Your task to perform on an android device: change text size in settings app Image 0: 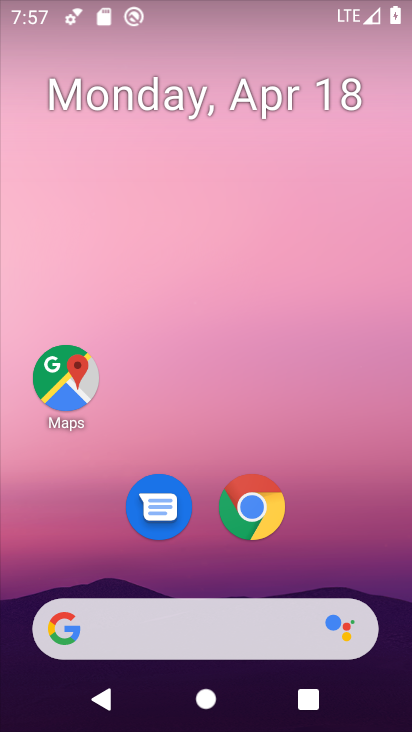
Step 0: drag from (6, 515) to (261, 38)
Your task to perform on an android device: change text size in settings app Image 1: 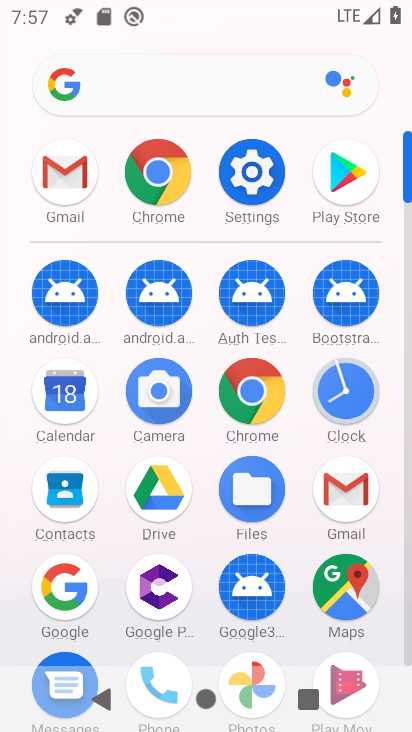
Step 1: click (247, 190)
Your task to perform on an android device: change text size in settings app Image 2: 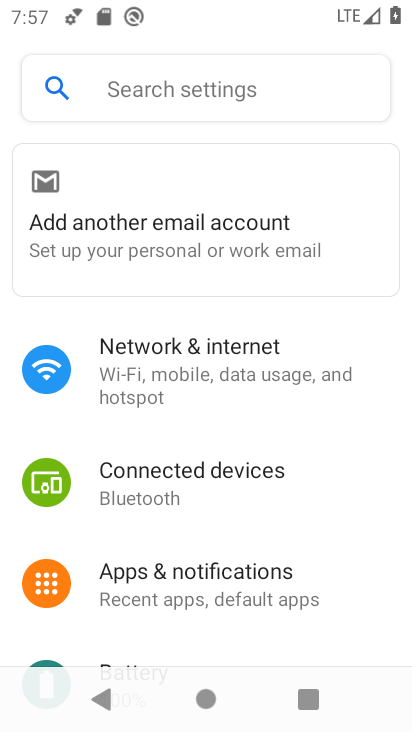
Step 2: drag from (164, 599) to (240, 258)
Your task to perform on an android device: change text size in settings app Image 3: 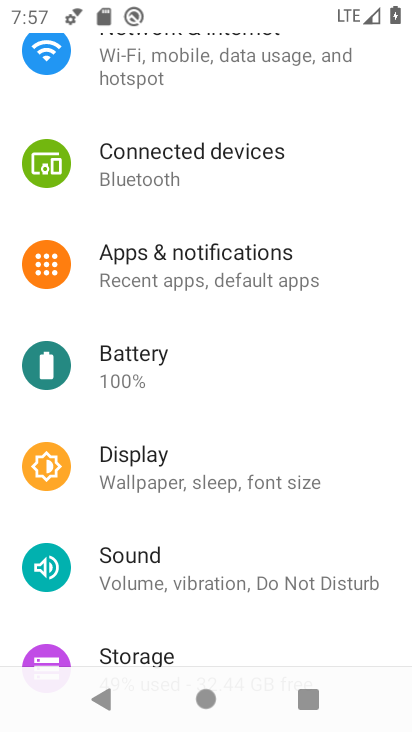
Step 3: click (197, 489)
Your task to perform on an android device: change text size in settings app Image 4: 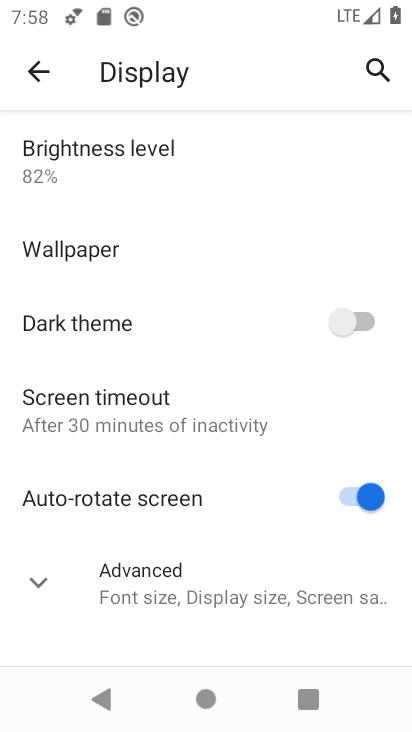
Step 4: click (60, 579)
Your task to perform on an android device: change text size in settings app Image 5: 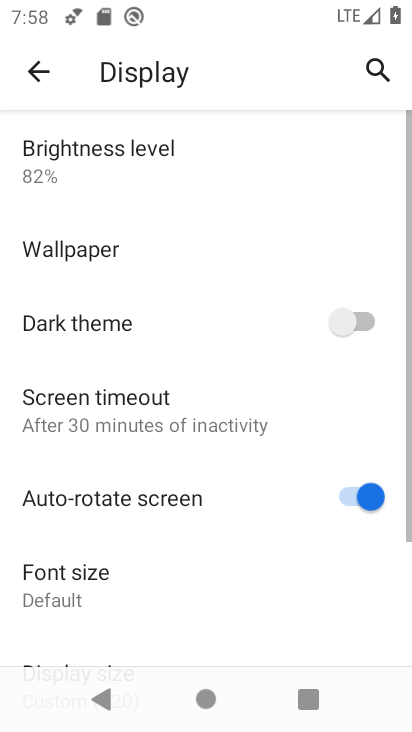
Step 5: drag from (125, 577) to (172, 258)
Your task to perform on an android device: change text size in settings app Image 6: 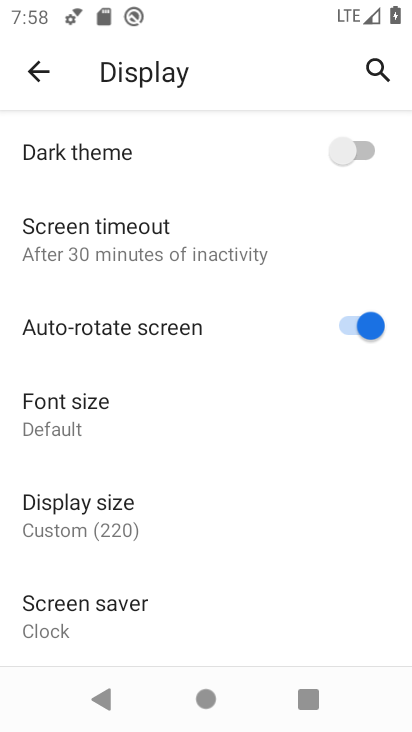
Step 6: click (99, 419)
Your task to perform on an android device: change text size in settings app Image 7: 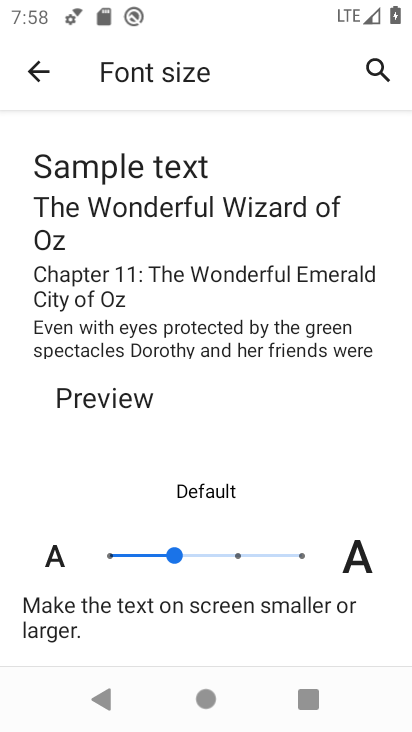
Step 7: click (109, 550)
Your task to perform on an android device: change text size in settings app Image 8: 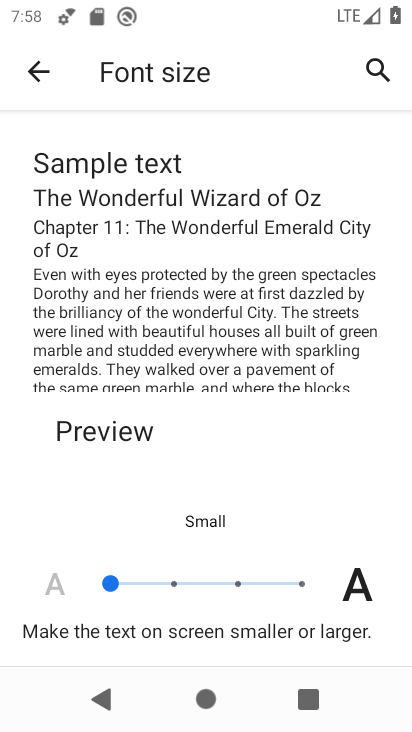
Step 8: task complete